Your task to perform on an android device: Check the weather Image 0: 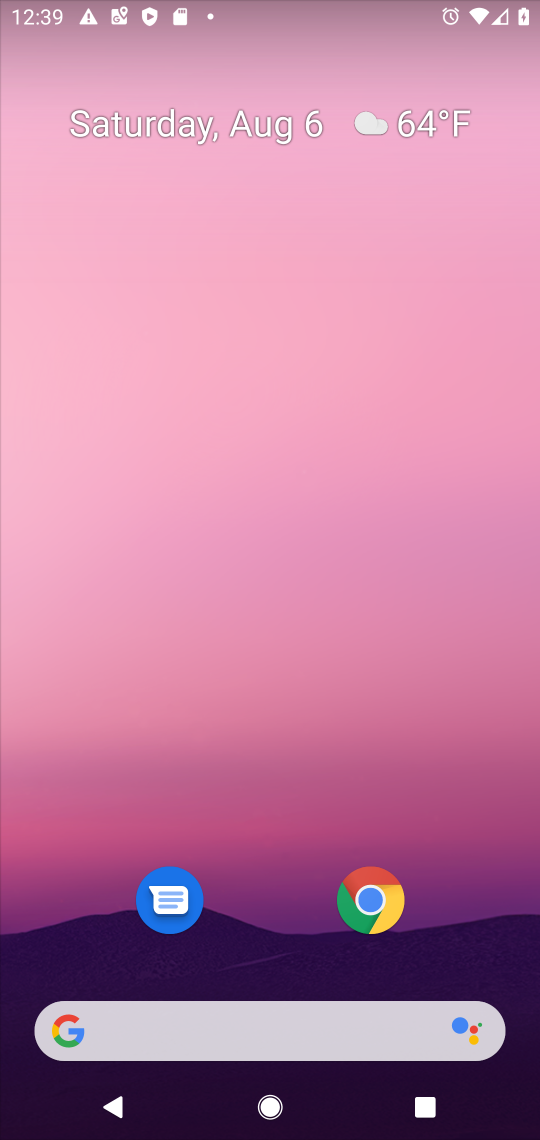
Step 0: click (365, 133)
Your task to perform on an android device: Check the weather Image 1: 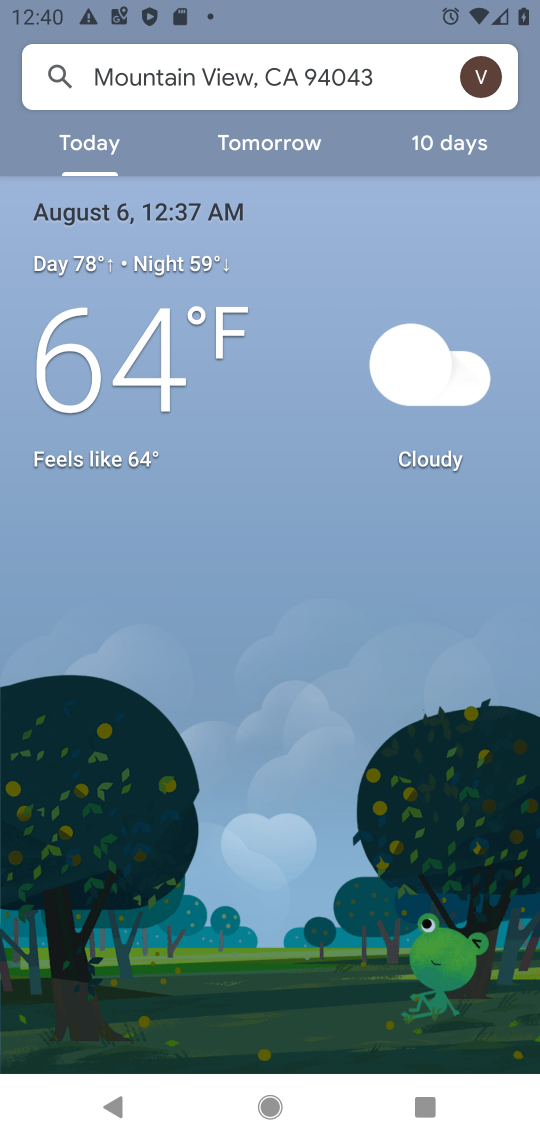
Step 1: task complete